Your task to perform on an android device: turn off notifications in google photos Image 0: 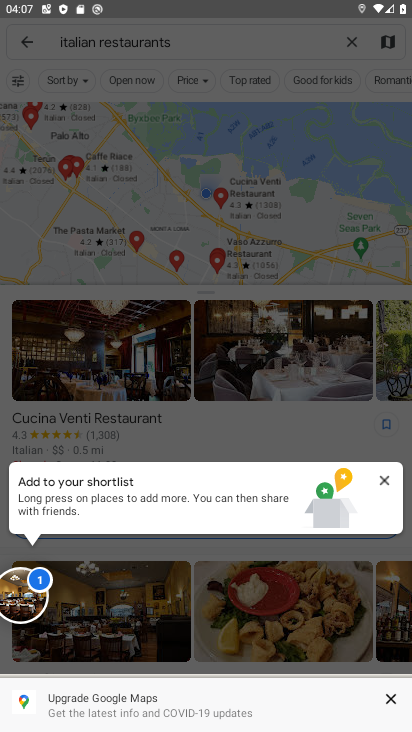
Step 0: press home button
Your task to perform on an android device: turn off notifications in google photos Image 1: 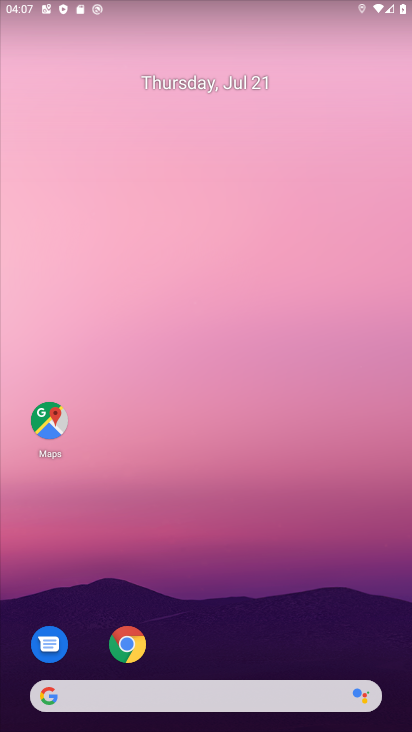
Step 1: drag from (245, 663) to (263, 9)
Your task to perform on an android device: turn off notifications in google photos Image 2: 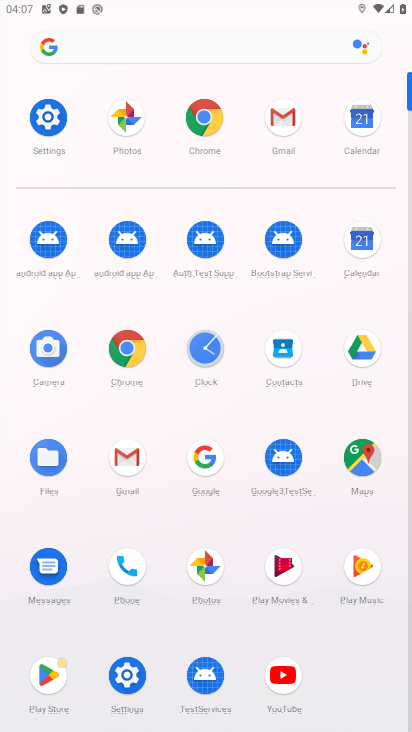
Step 2: click (206, 565)
Your task to perform on an android device: turn off notifications in google photos Image 3: 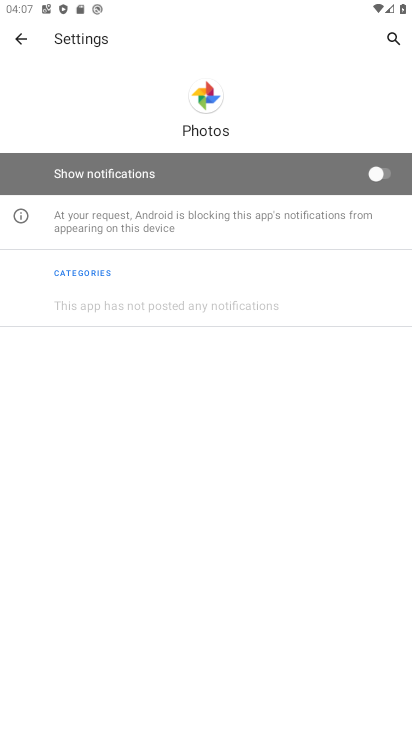
Step 3: task complete